Your task to perform on an android device: Turn on the flashlight Image 0: 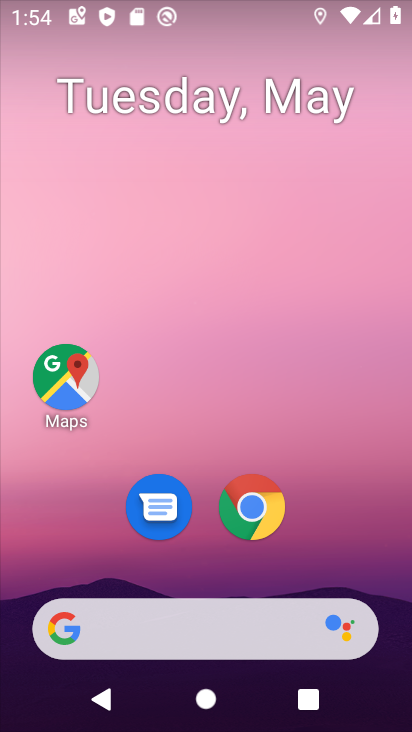
Step 0: drag from (180, 532) to (232, 0)
Your task to perform on an android device: Turn on the flashlight Image 1: 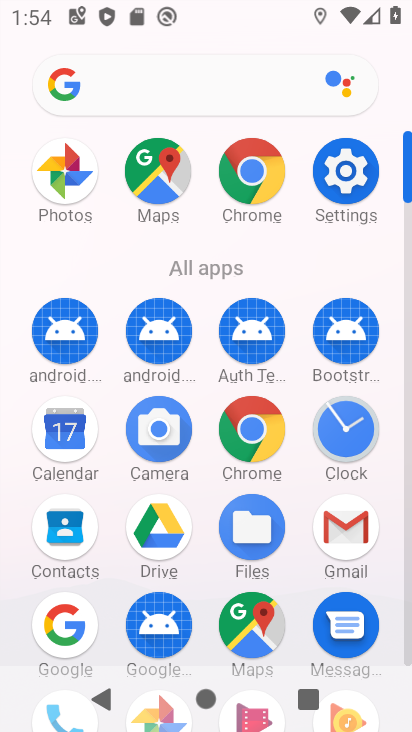
Step 1: click (332, 161)
Your task to perform on an android device: Turn on the flashlight Image 2: 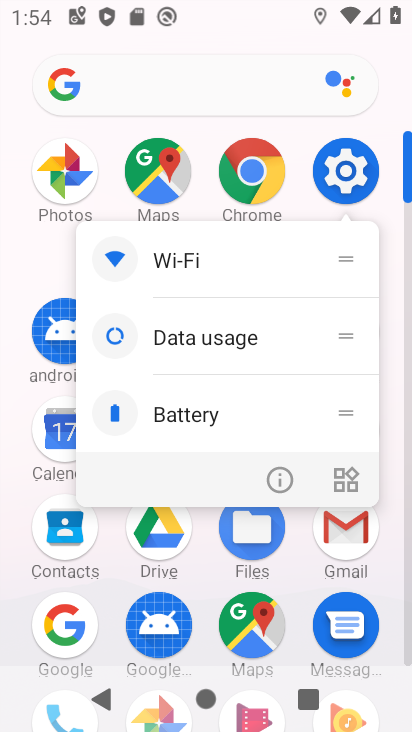
Step 2: click (348, 176)
Your task to perform on an android device: Turn on the flashlight Image 3: 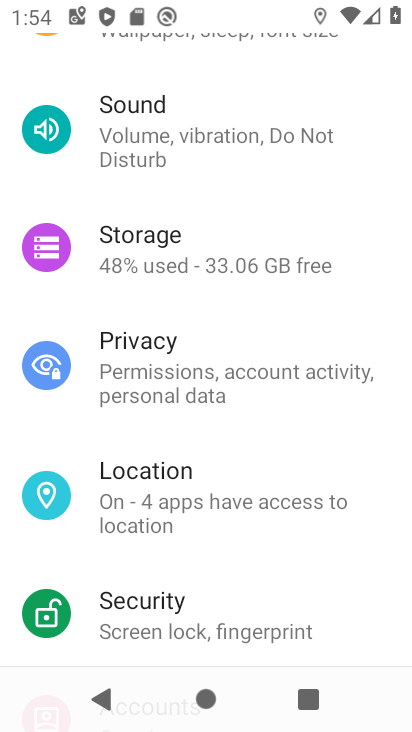
Step 3: drag from (222, 634) to (216, 509)
Your task to perform on an android device: Turn on the flashlight Image 4: 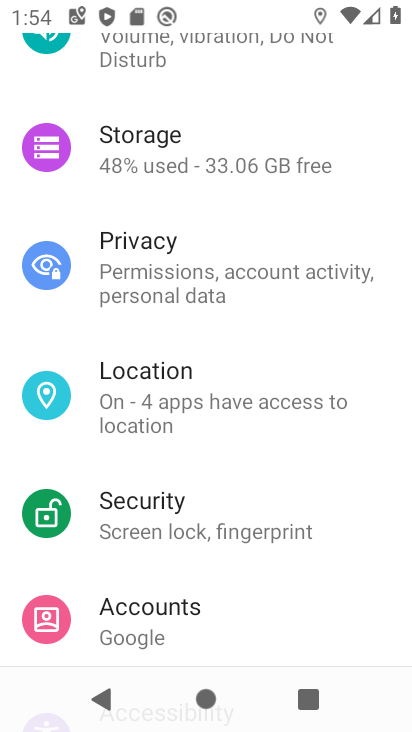
Step 4: drag from (196, 632) to (211, 528)
Your task to perform on an android device: Turn on the flashlight Image 5: 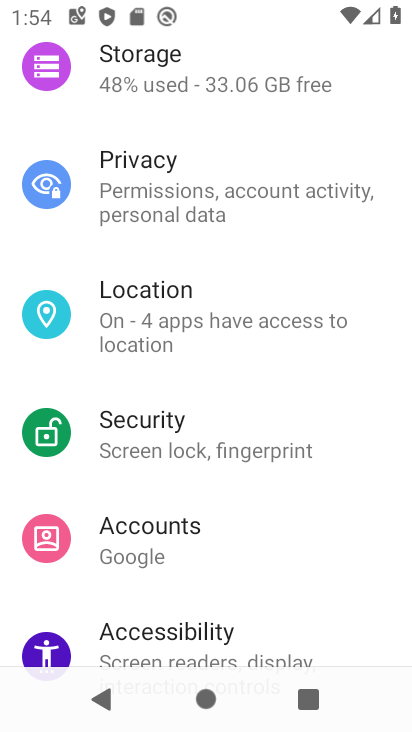
Step 5: drag from (211, 642) to (233, 520)
Your task to perform on an android device: Turn on the flashlight Image 6: 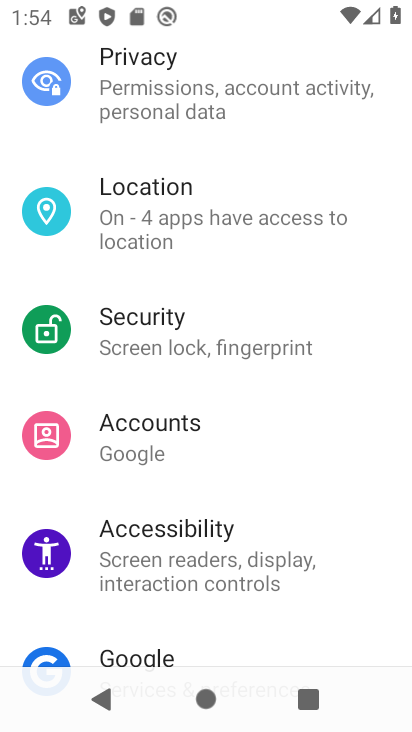
Step 6: drag from (176, 615) to (166, 362)
Your task to perform on an android device: Turn on the flashlight Image 7: 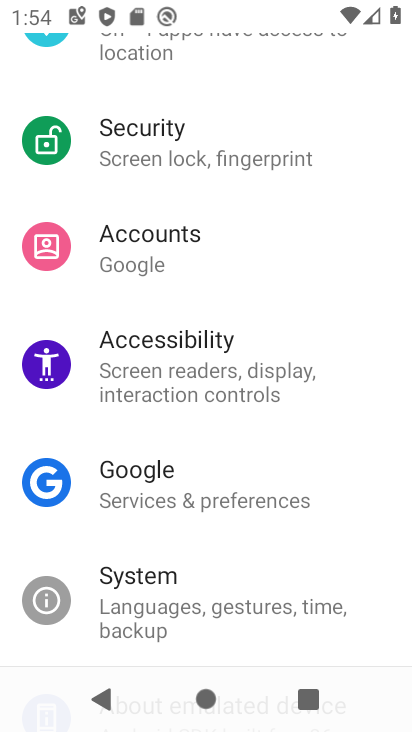
Step 7: drag from (177, 521) to (191, 347)
Your task to perform on an android device: Turn on the flashlight Image 8: 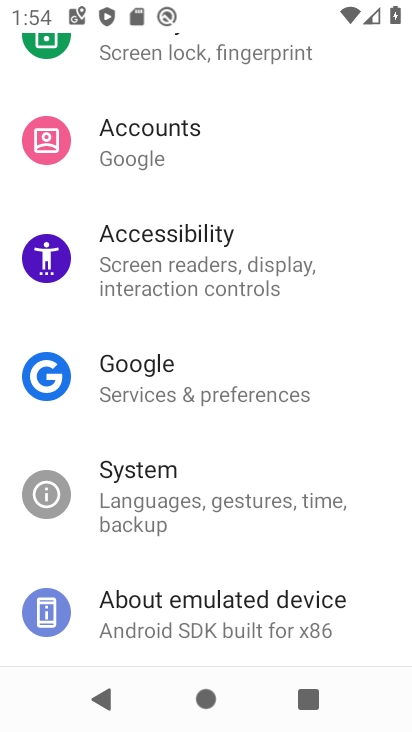
Step 8: drag from (178, 563) to (186, 339)
Your task to perform on an android device: Turn on the flashlight Image 9: 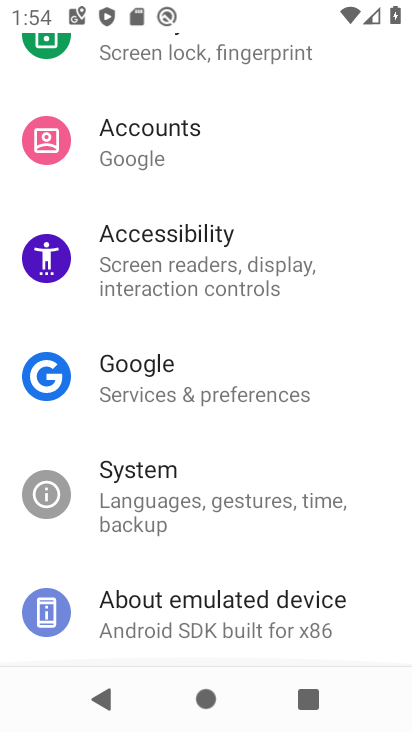
Step 9: drag from (212, 250) to (232, 493)
Your task to perform on an android device: Turn on the flashlight Image 10: 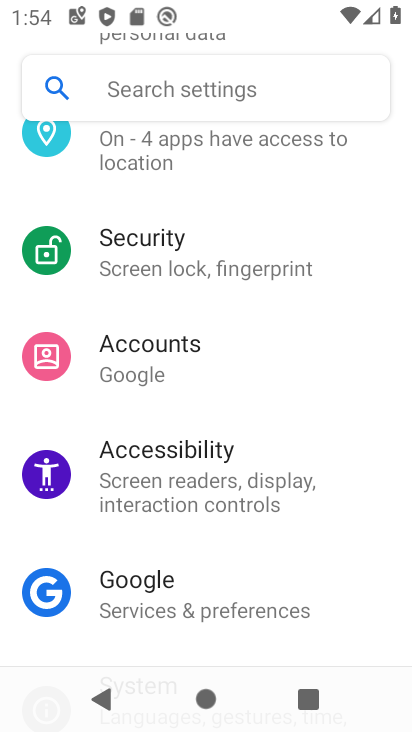
Step 10: drag from (252, 332) to (263, 505)
Your task to perform on an android device: Turn on the flashlight Image 11: 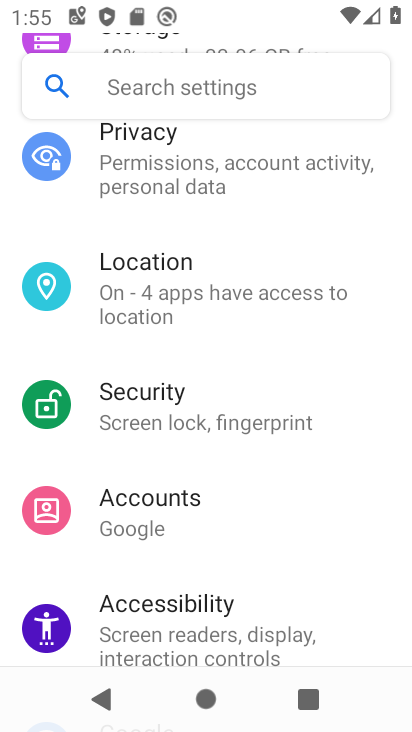
Step 11: drag from (247, 264) to (284, 433)
Your task to perform on an android device: Turn on the flashlight Image 12: 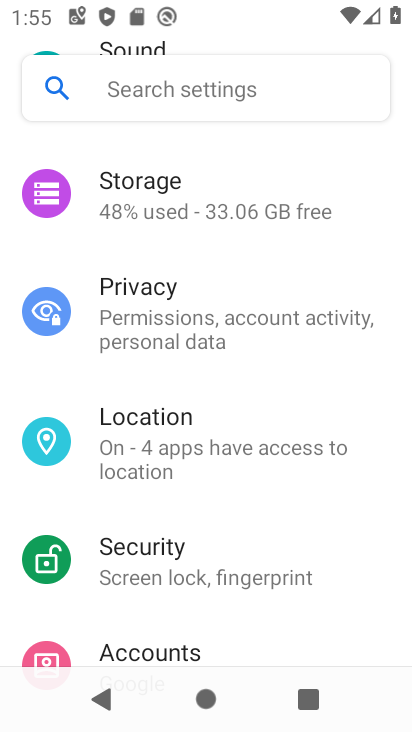
Step 12: drag from (287, 250) to (303, 345)
Your task to perform on an android device: Turn on the flashlight Image 13: 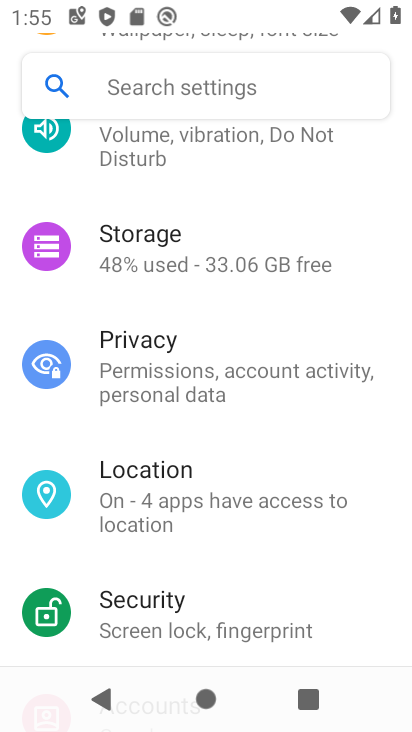
Step 13: click (274, 479)
Your task to perform on an android device: Turn on the flashlight Image 14: 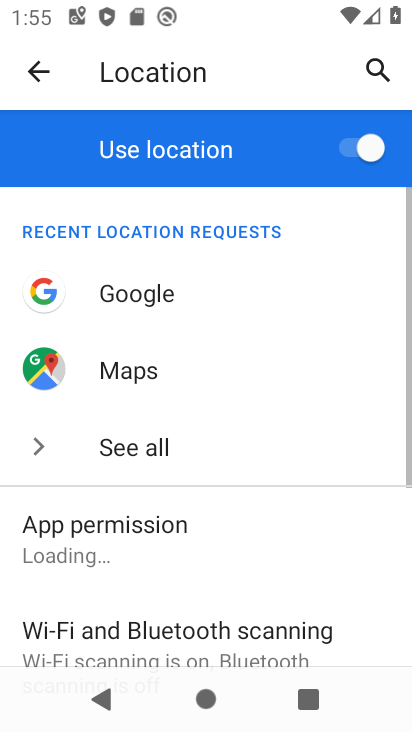
Step 14: task complete